Your task to perform on an android device: toggle notifications settings in the gmail app Image 0: 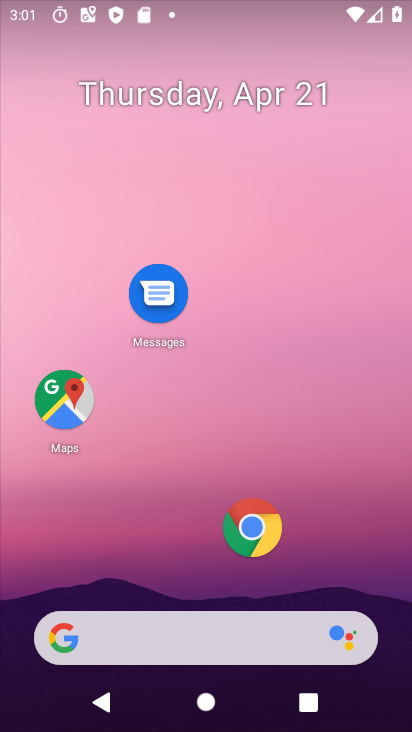
Step 0: drag from (224, 602) to (171, 207)
Your task to perform on an android device: toggle notifications settings in the gmail app Image 1: 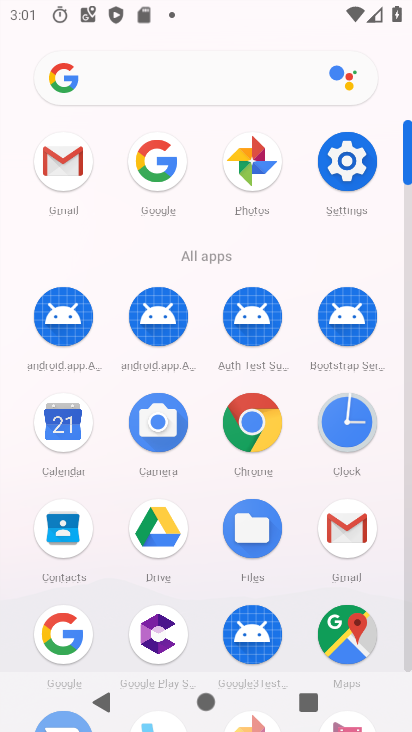
Step 1: click (66, 175)
Your task to perform on an android device: toggle notifications settings in the gmail app Image 2: 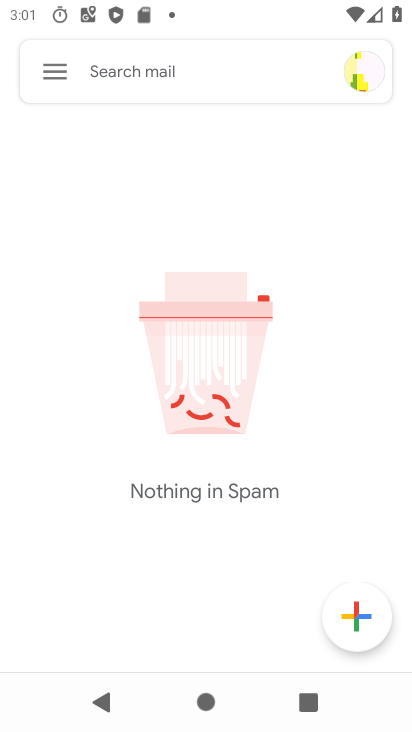
Step 2: click (48, 86)
Your task to perform on an android device: toggle notifications settings in the gmail app Image 3: 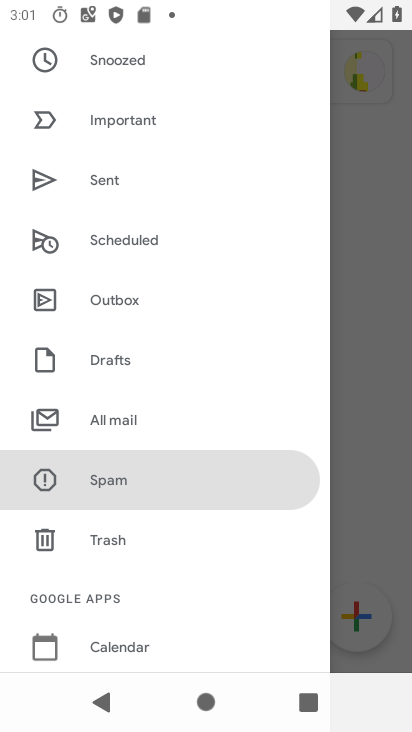
Step 3: drag from (162, 649) to (209, 301)
Your task to perform on an android device: toggle notifications settings in the gmail app Image 4: 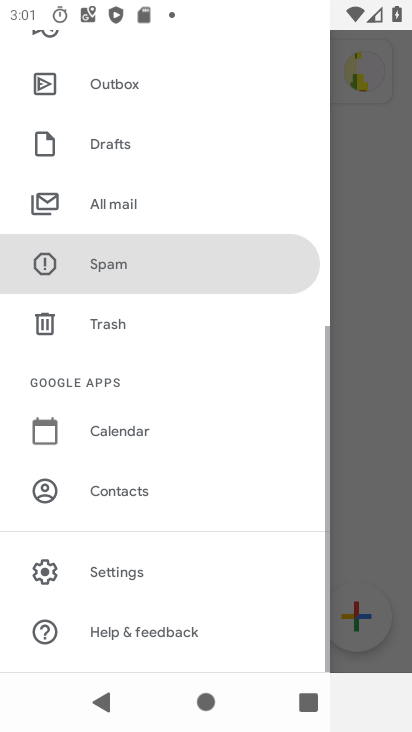
Step 4: click (110, 570)
Your task to perform on an android device: toggle notifications settings in the gmail app Image 5: 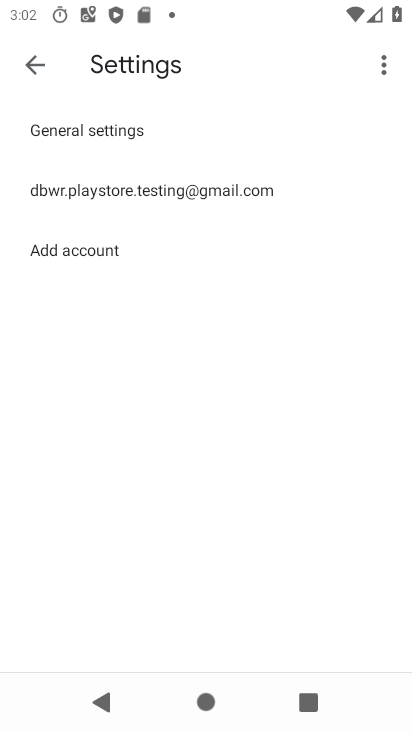
Step 5: click (68, 130)
Your task to perform on an android device: toggle notifications settings in the gmail app Image 6: 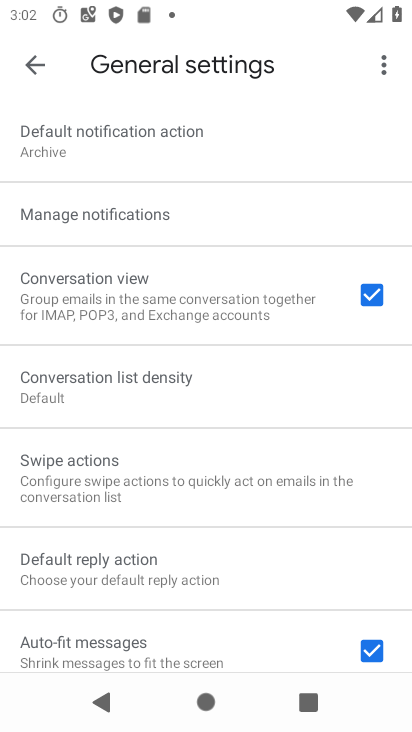
Step 6: click (75, 218)
Your task to perform on an android device: toggle notifications settings in the gmail app Image 7: 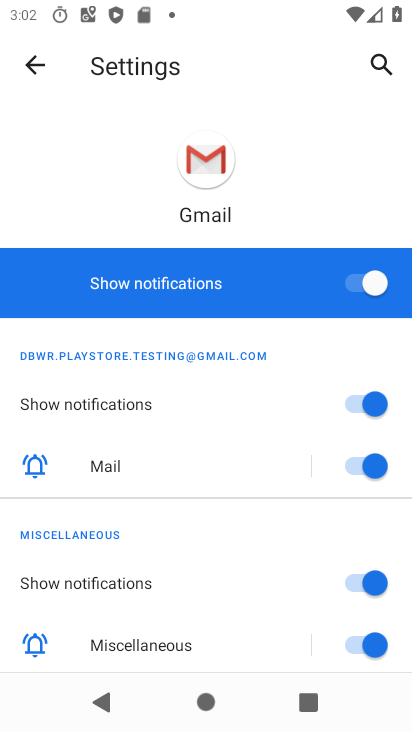
Step 7: click (354, 281)
Your task to perform on an android device: toggle notifications settings in the gmail app Image 8: 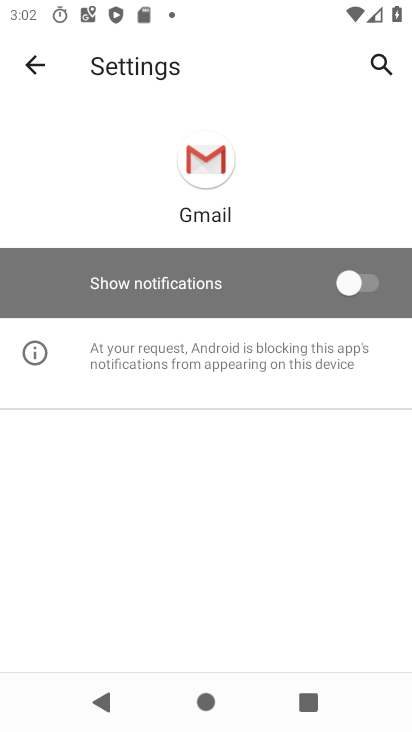
Step 8: task complete